Your task to perform on an android device: Open Youtube and go to "Your channel" Image 0: 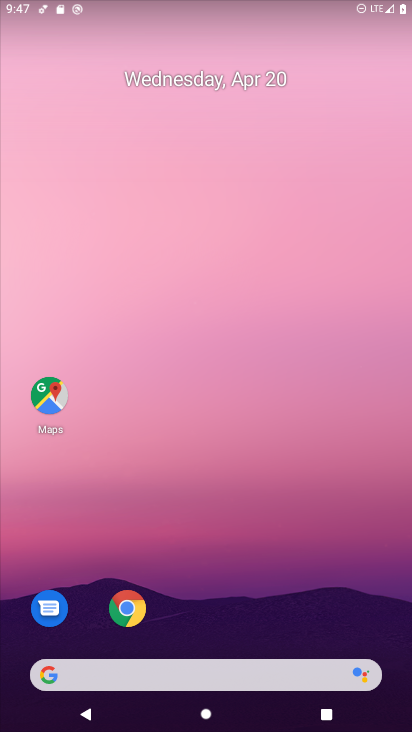
Step 0: drag from (208, 619) to (312, 5)
Your task to perform on an android device: Open Youtube and go to "Your channel" Image 1: 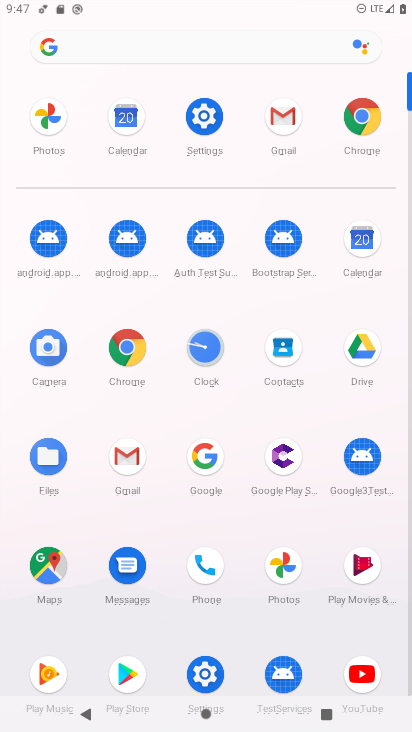
Step 1: click (358, 670)
Your task to perform on an android device: Open Youtube and go to "Your channel" Image 2: 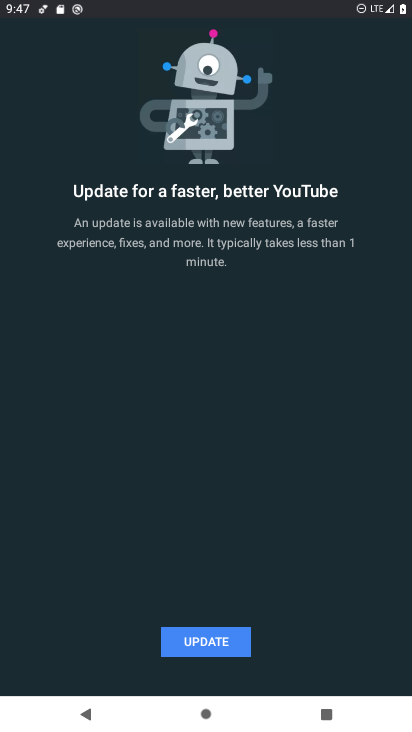
Step 2: click (208, 644)
Your task to perform on an android device: Open Youtube and go to "Your channel" Image 3: 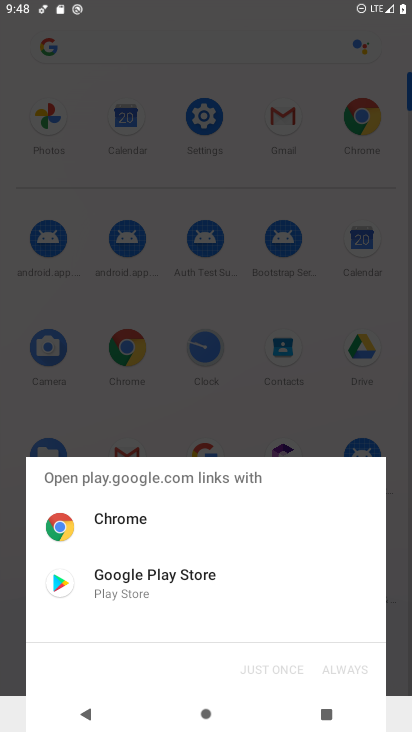
Step 3: click (119, 595)
Your task to perform on an android device: Open Youtube and go to "Your channel" Image 4: 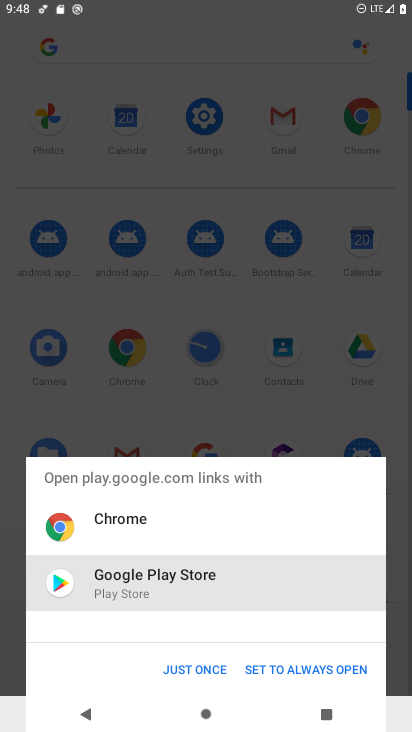
Step 4: click (179, 665)
Your task to perform on an android device: Open Youtube and go to "Your channel" Image 5: 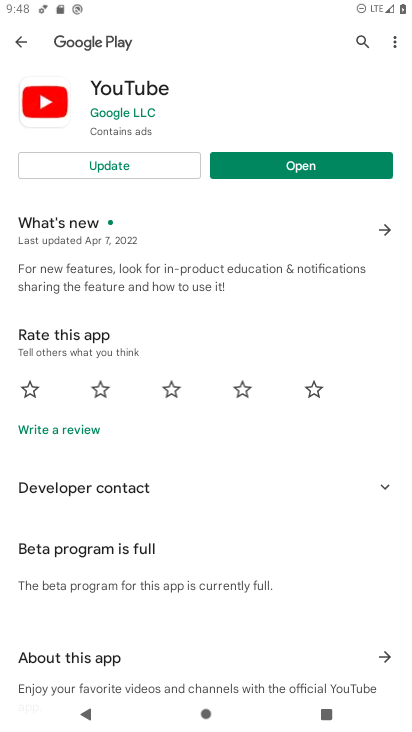
Step 5: click (119, 166)
Your task to perform on an android device: Open Youtube and go to "Your channel" Image 6: 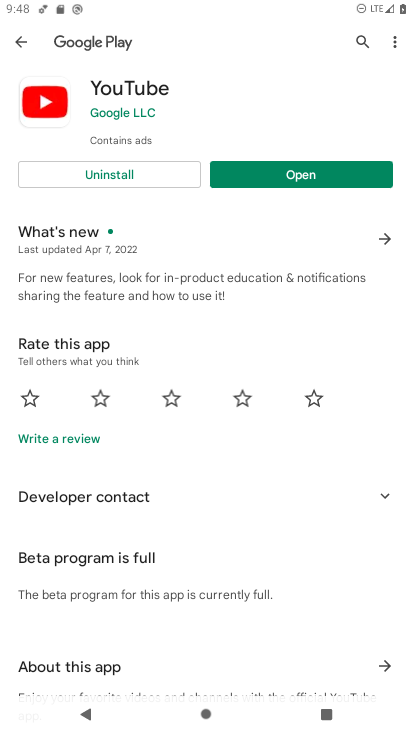
Step 6: click (286, 176)
Your task to perform on an android device: Open Youtube and go to "Your channel" Image 7: 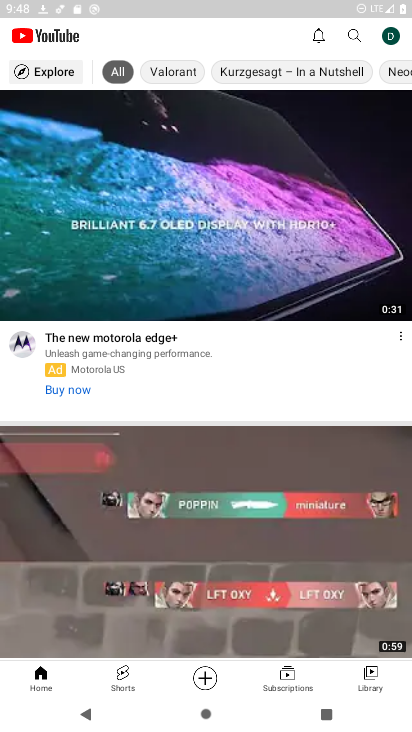
Step 7: click (390, 40)
Your task to perform on an android device: Open Youtube and go to "Your channel" Image 8: 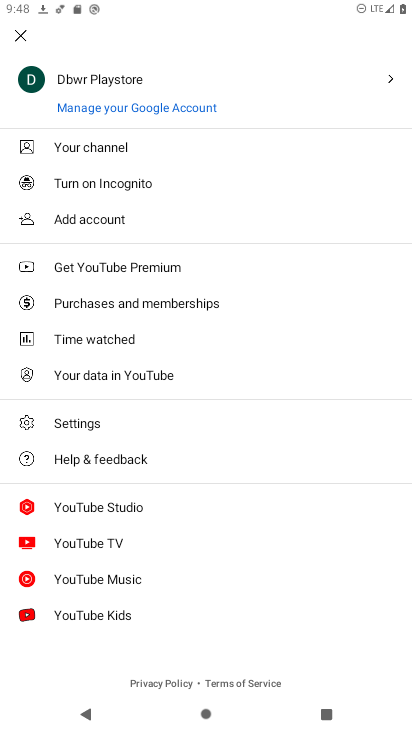
Step 8: click (79, 148)
Your task to perform on an android device: Open Youtube and go to "Your channel" Image 9: 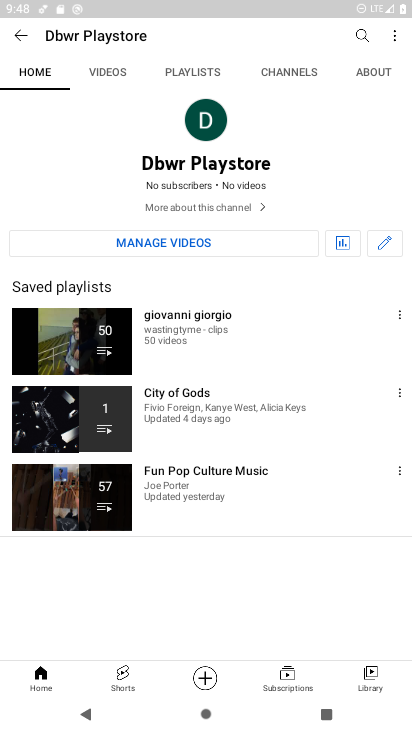
Step 9: task complete